Your task to perform on an android device: Open calendar and show me the first week of next month Image 0: 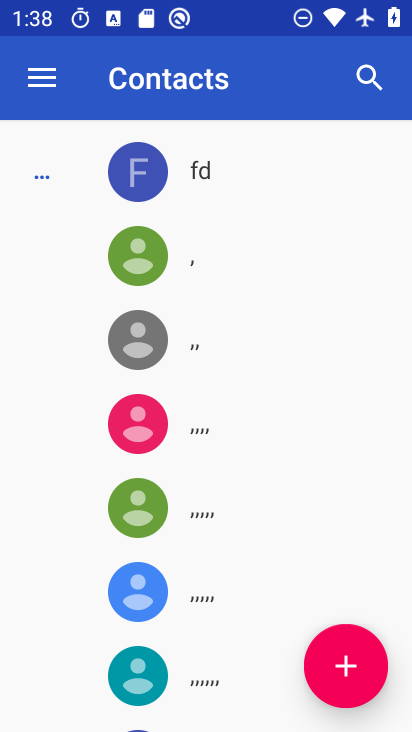
Step 0: press home button
Your task to perform on an android device: Open calendar and show me the first week of next month Image 1: 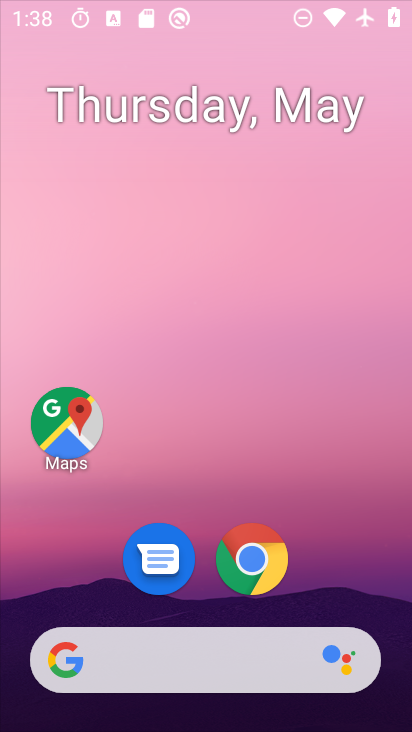
Step 1: drag from (206, 495) to (287, 33)
Your task to perform on an android device: Open calendar and show me the first week of next month Image 2: 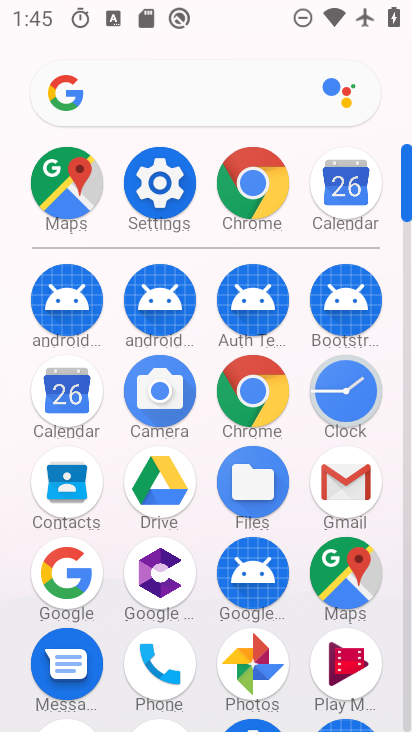
Step 2: click (70, 409)
Your task to perform on an android device: Open calendar and show me the first week of next month Image 3: 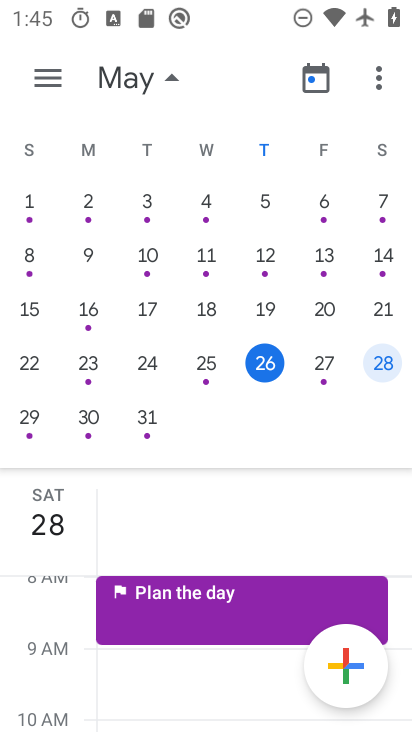
Step 3: drag from (365, 393) to (18, 227)
Your task to perform on an android device: Open calendar and show me the first week of next month Image 4: 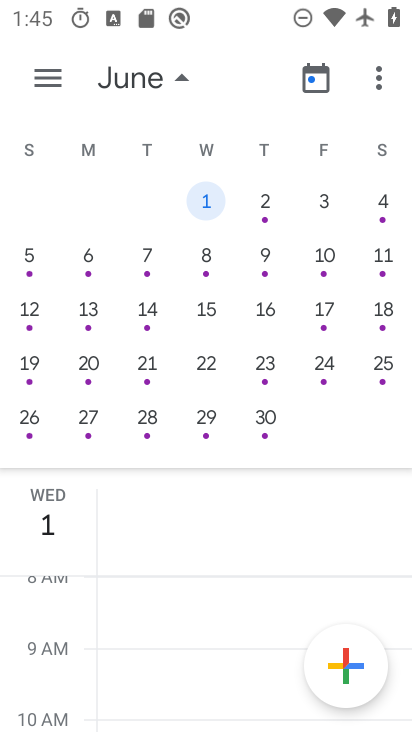
Step 4: click (211, 205)
Your task to perform on an android device: Open calendar and show me the first week of next month Image 5: 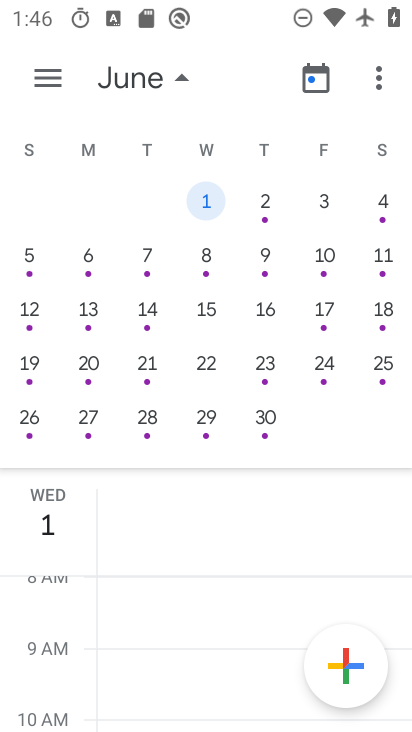
Step 5: task complete